Your task to perform on an android device: add a contact Image 0: 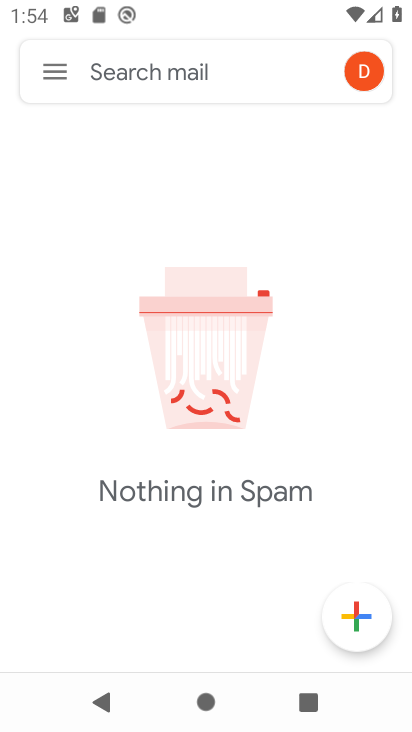
Step 0: press home button
Your task to perform on an android device: add a contact Image 1: 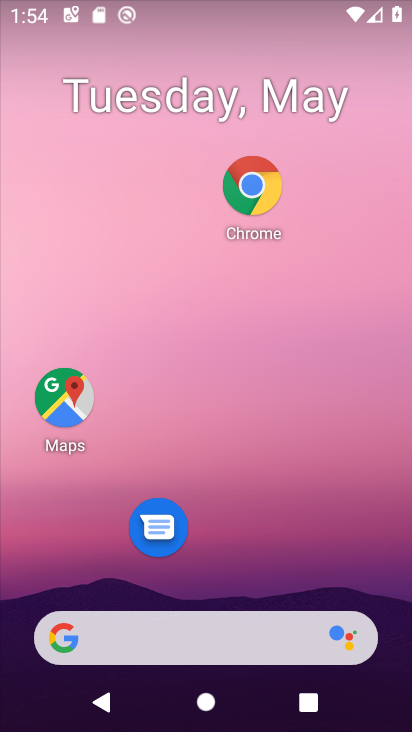
Step 1: drag from (248, 531) to (165, 120)
Your task to perform on an android device: add a contact Image 2: 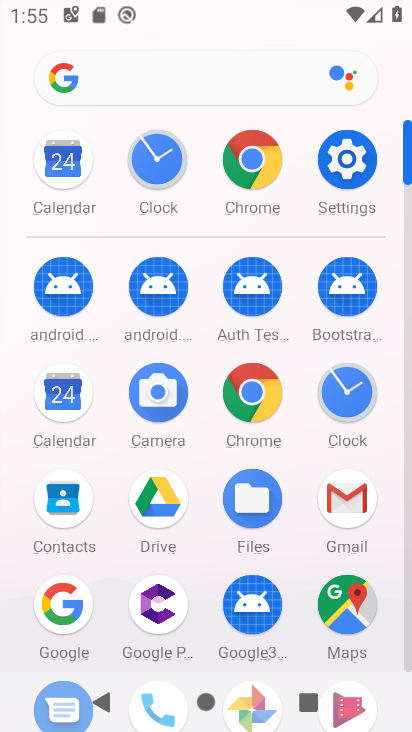
Step 2: click (56, 491)
Your task to perform on an android device: add a contact Image 3: 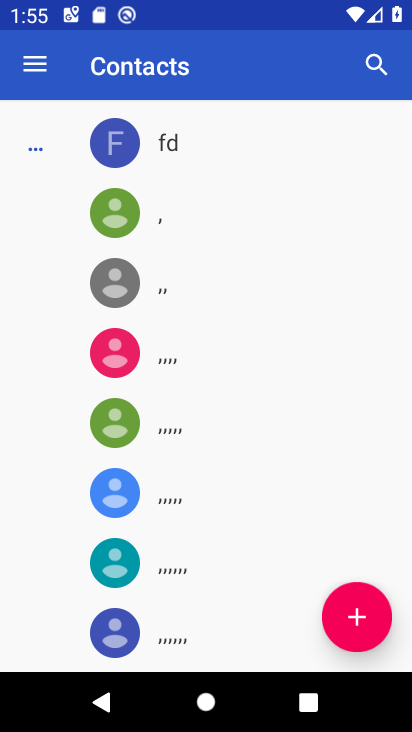
Step 3: click (356, 619)
Your task to perform on an android device: add a contact Image 4: 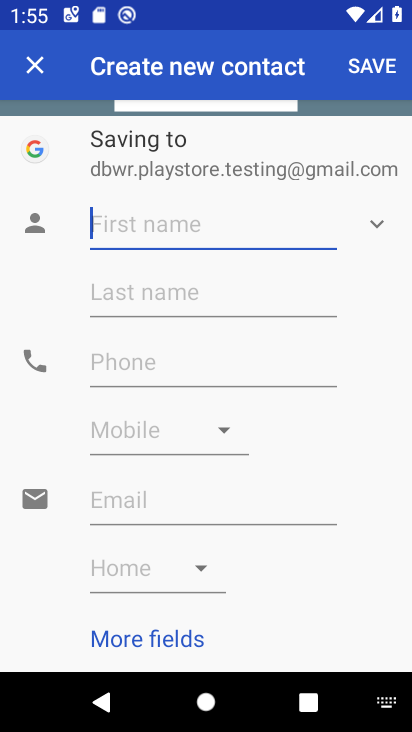
Step 4: type "fxxvvf"
Your task to perform on an android device: add a contact Image 5: 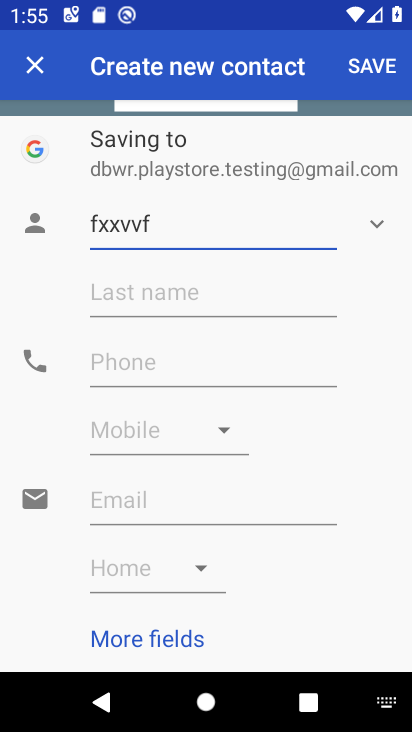
Step 5: click (153, 363)
Your task to perform on an android device: add a contact Image 6: 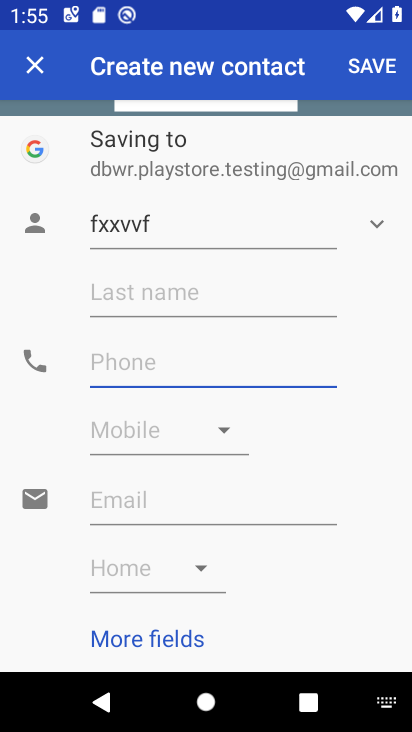
Step 6: type "65433556"
Your task to perform on an android device: add a contact Image 7: 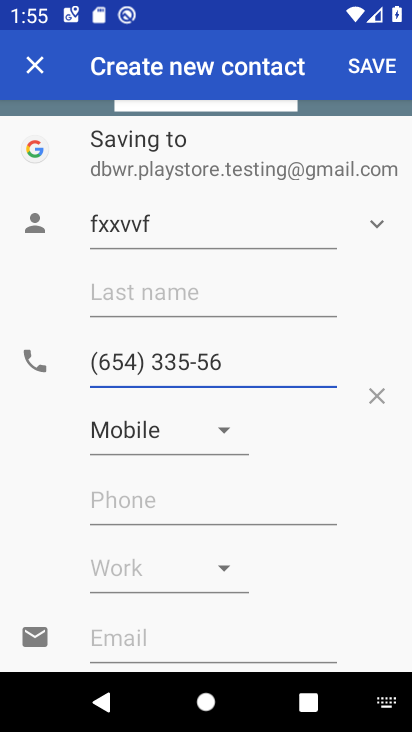
Step 7: click (371, 58)
Your task to perform on an android device: add a contact Image 8: 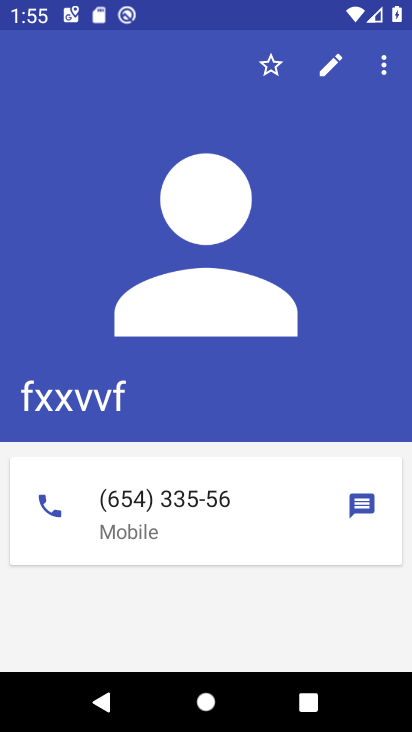
Step 8: task complete